Your task to perform on an android device: turn on notifications settings in the gmail app Image 0: 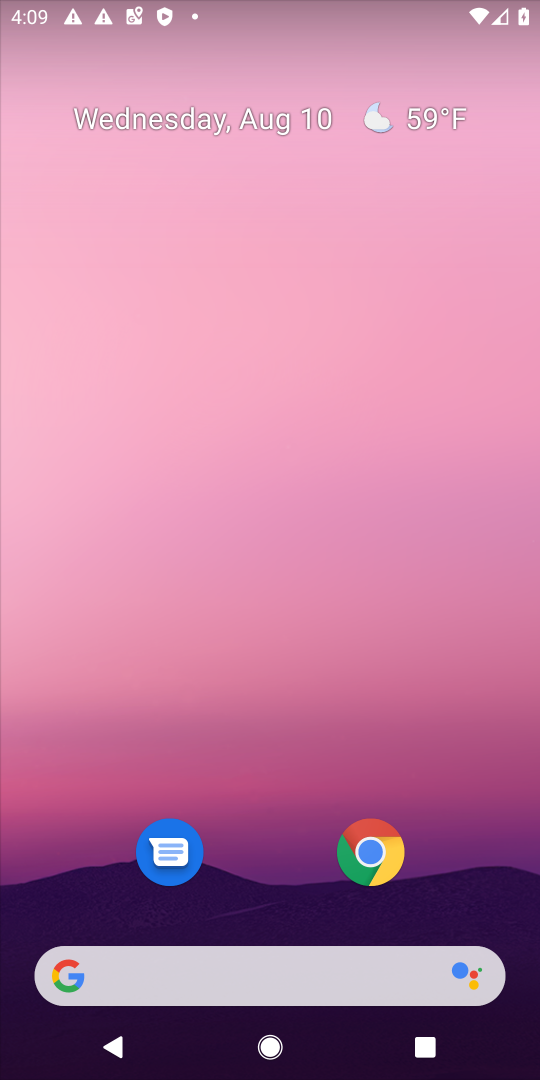
Step 0: drag from (463, 885) to (174, 165)
Your task to perform on an android device: turn on notifications settings in the gmail app Image 1: 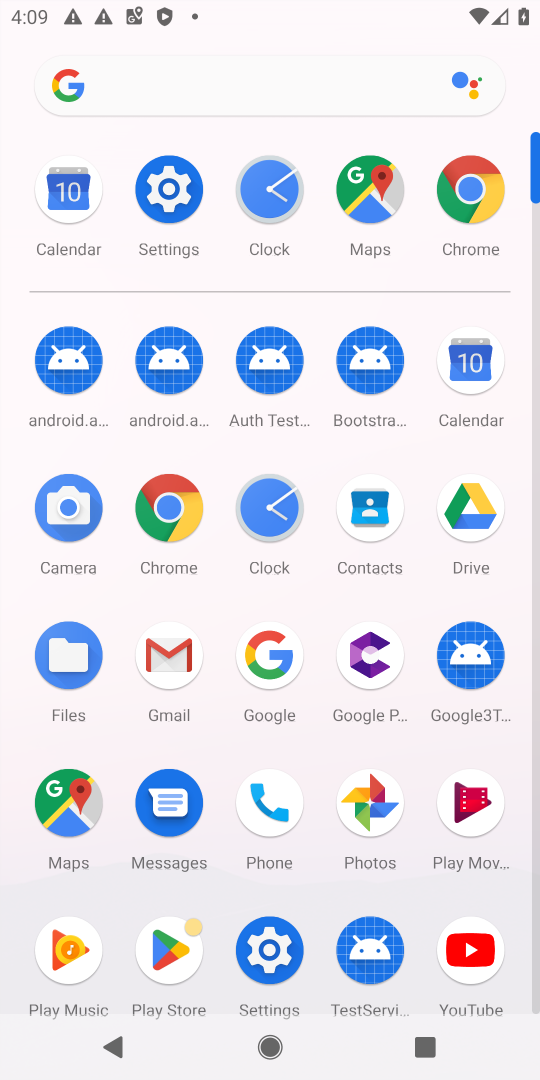
Step 1: click (148, 653)
Your task to perform on an android device: turn on notifications settings in the gmail app Image 2: 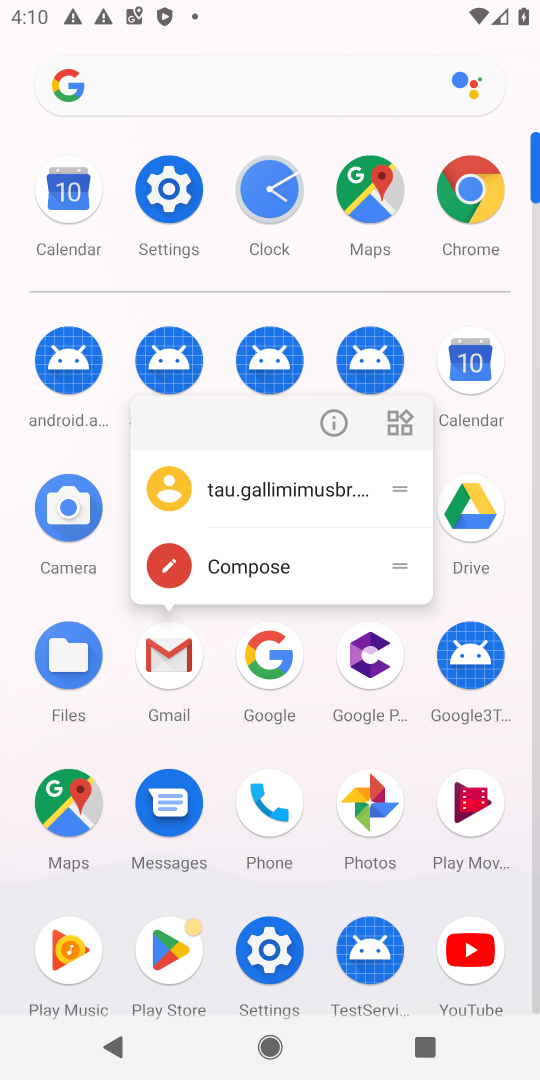
Step 2: click (174, 656)
Your task to perform on an android device: turn on notifications settings in the gmail app Image 3: 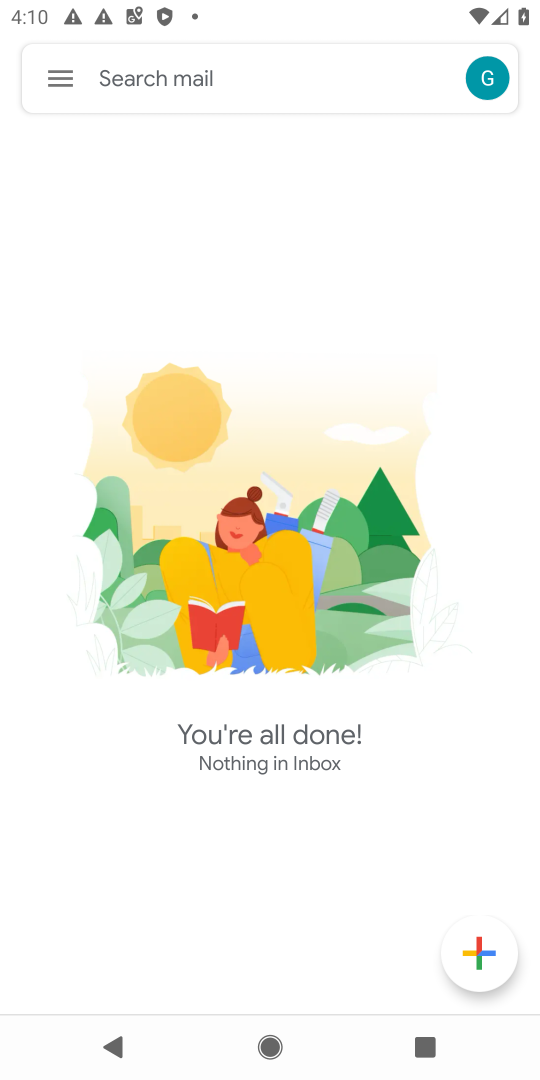
Step 3: click (63, 73)
Your task to perform on an android device: turn on notifications settings in the gmail app Image 4: 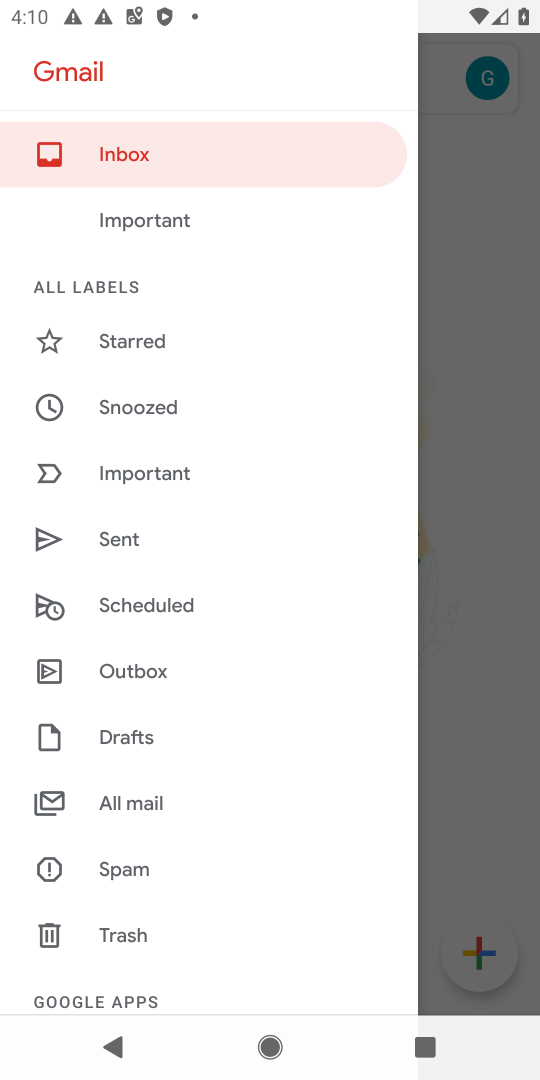
Step 4: drag from (220, 887) to (213, 244)
Your task to perform on an android device: turn on notifications settings in the gmail app Image 5: 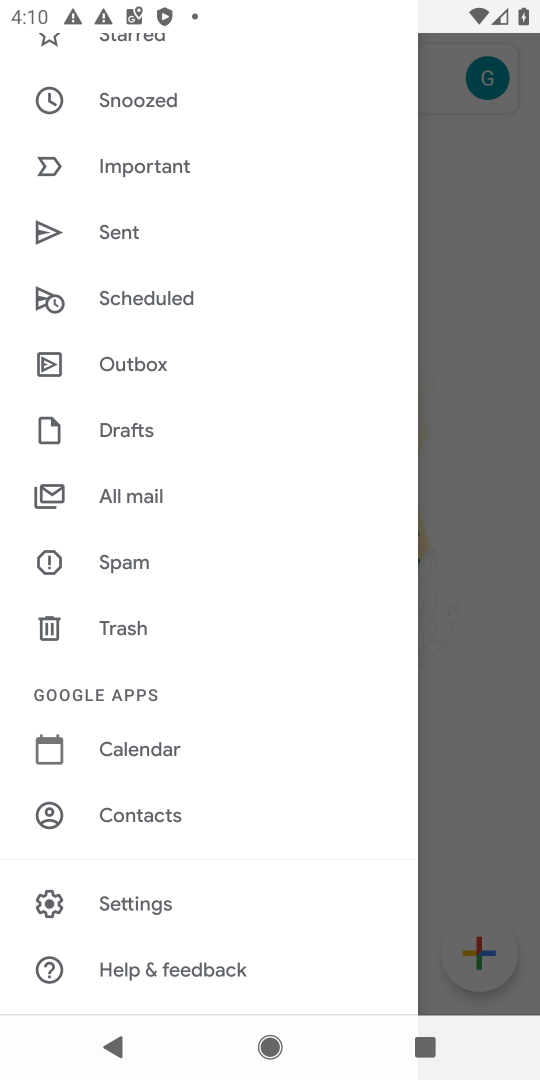
Step 5: click (118, 895)
Your task to perform on an android device: turn on notifications settings in the gmail app Image 6: 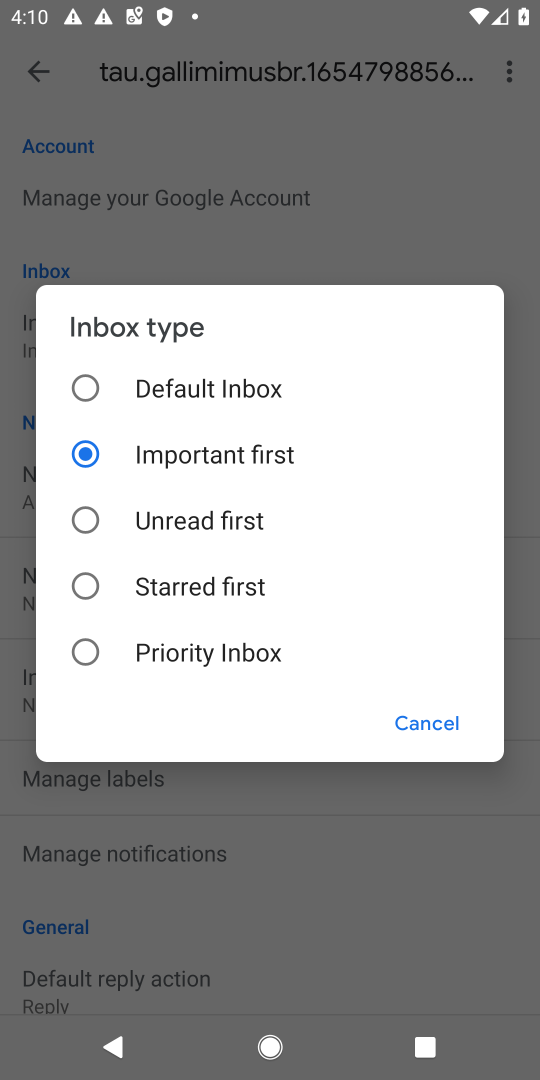
Step 6: click (396, 712)
Your task to perform on an android device: turn on notifications settings in the gmail app Image 7: 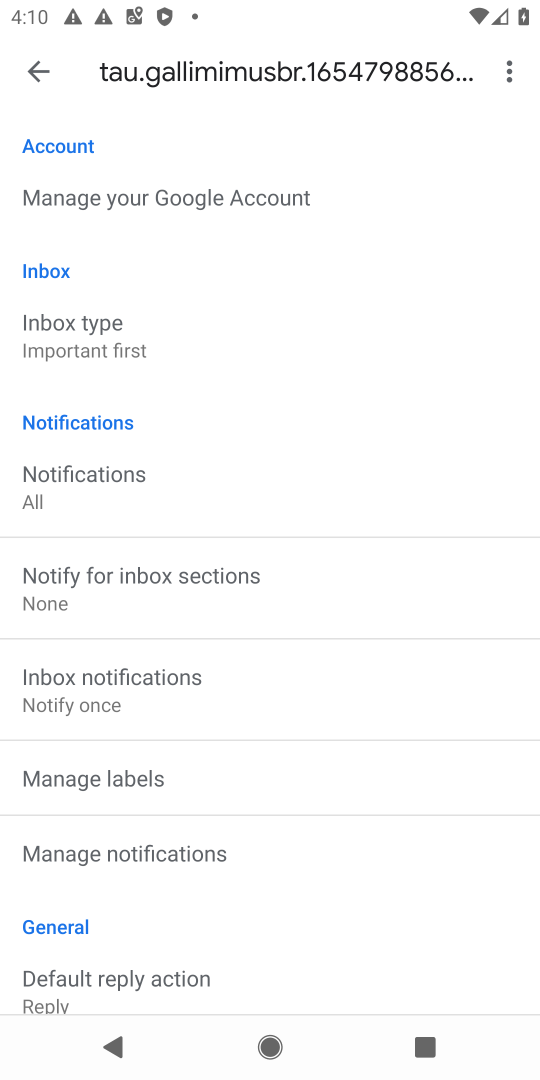
Step 7: click (155, 847)
Your task to perform on an android device: turn on notifications settings in the gmail app Image 8: 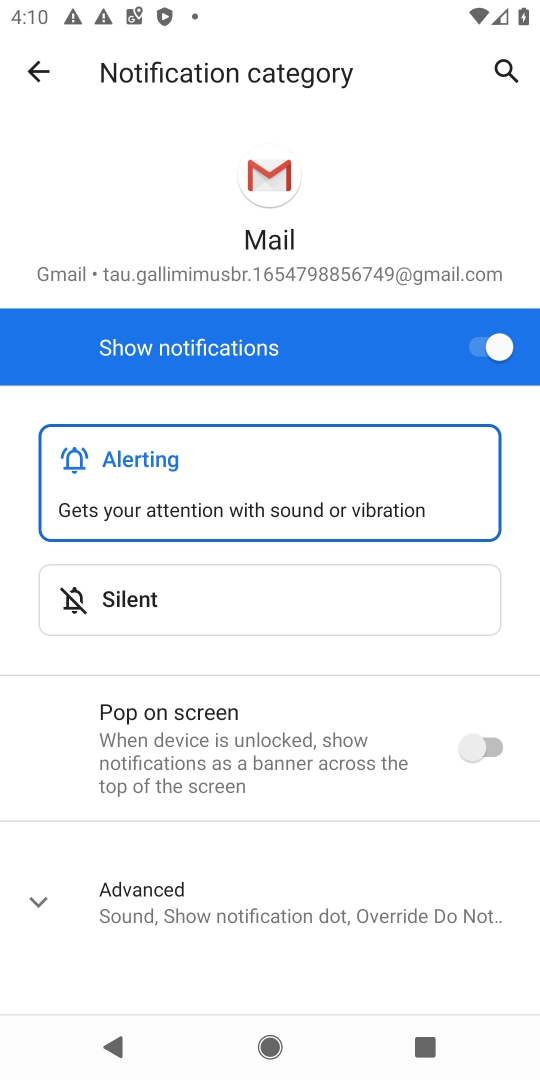
Step 8: task complete